Your task to perform on an android device: uninstall "DoorDash - Dasher" Image 0: 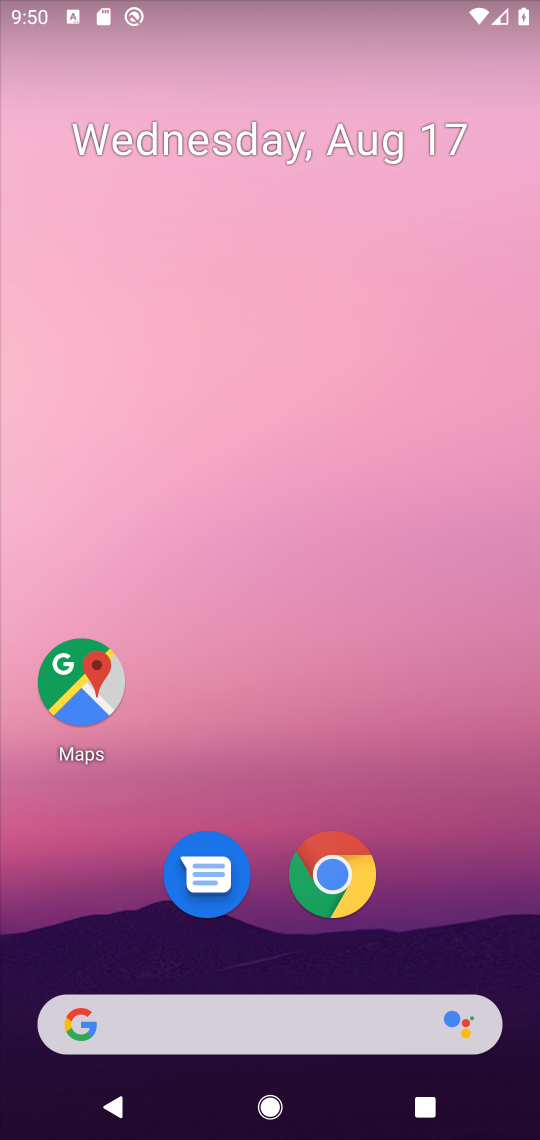
Step 0: press home button
Your task to perform on an android device: uninstall "DoorDash - Dasher" Image 1: 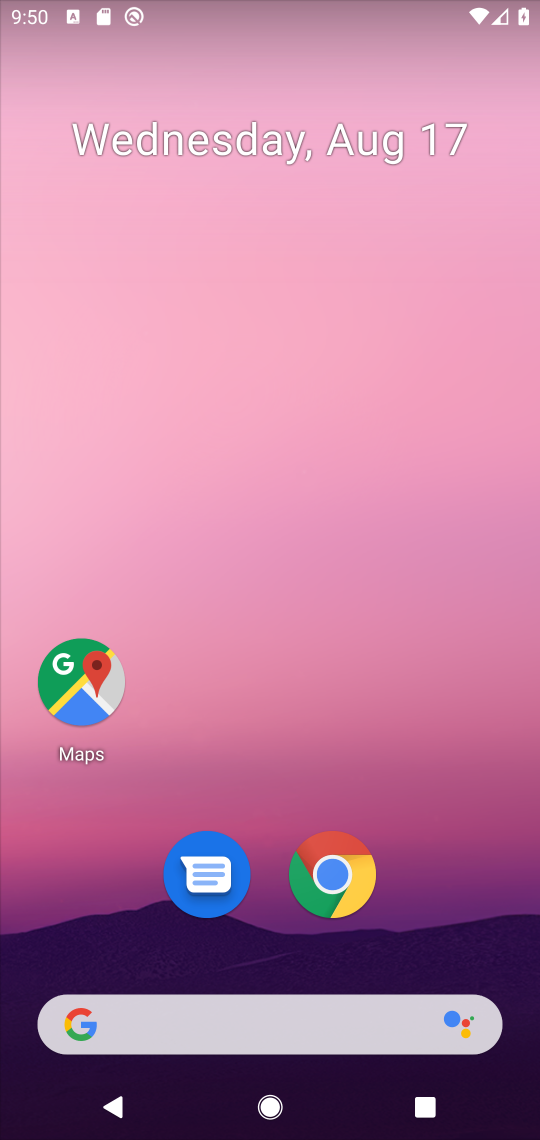
Step 1: drag from (226, 877) to (326, 190)
Your task to perform on an android device: uninstall "DoorDash - Dasher" Image 2: 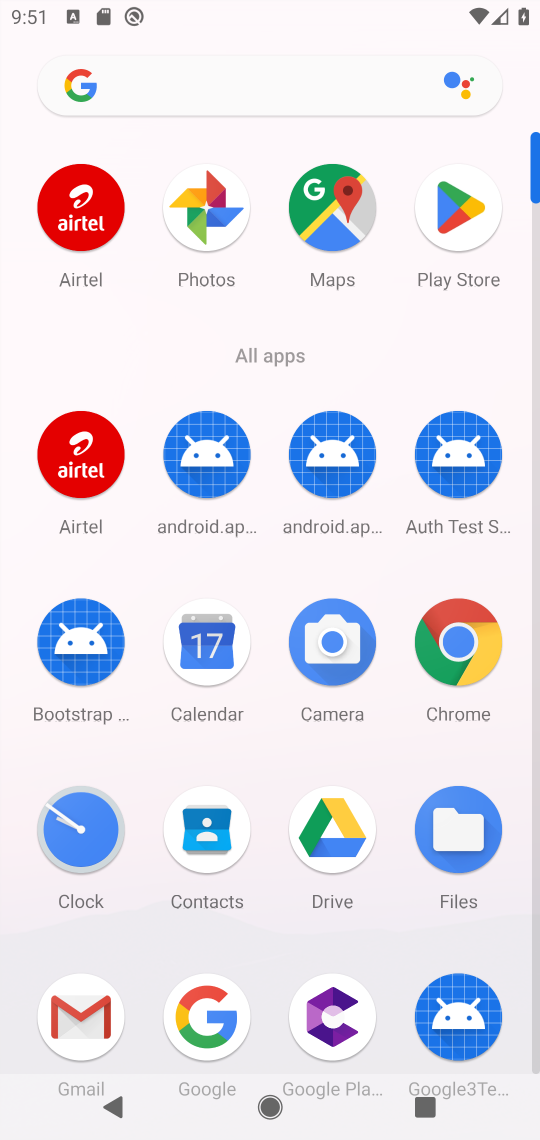
Step 2: click (464, 225)
Your task to perform on an android device: uninstall "DoorDash - Dasher" Image 3: 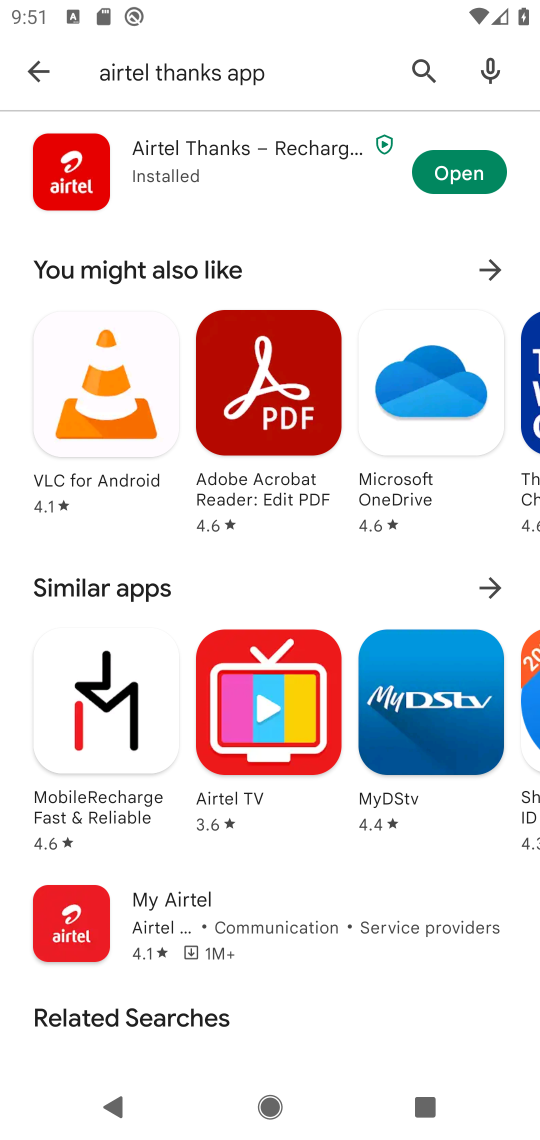
Step 3: click (22, 80)
Your task to perform on an android device: uninstall "DoorDash - Dasher" Image 4: 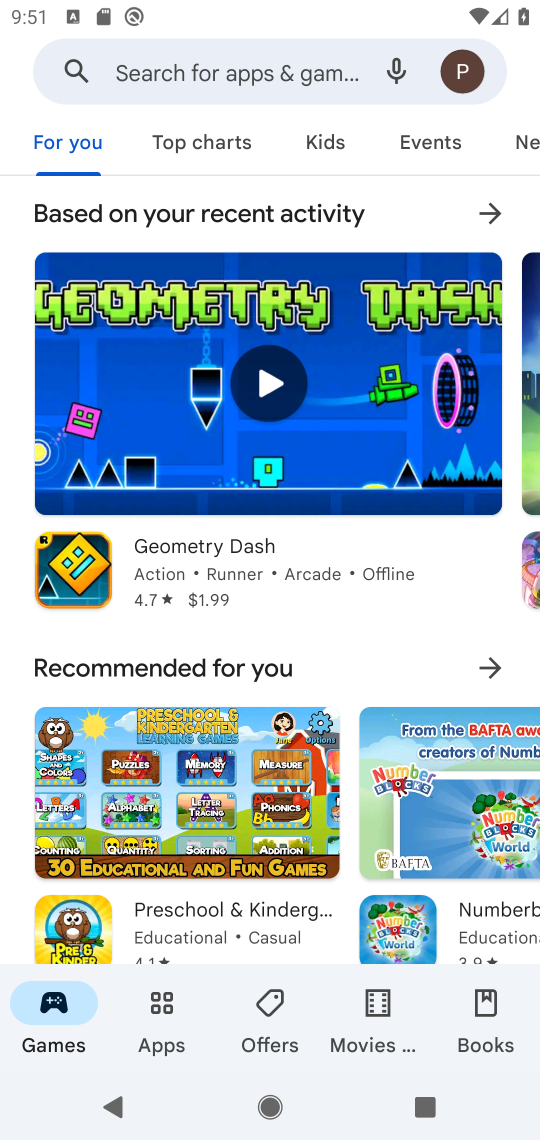
Step 4: click (166, 75)
Your task to perform on an android device: uninstall "DoorDash - Dasher" Image 5: 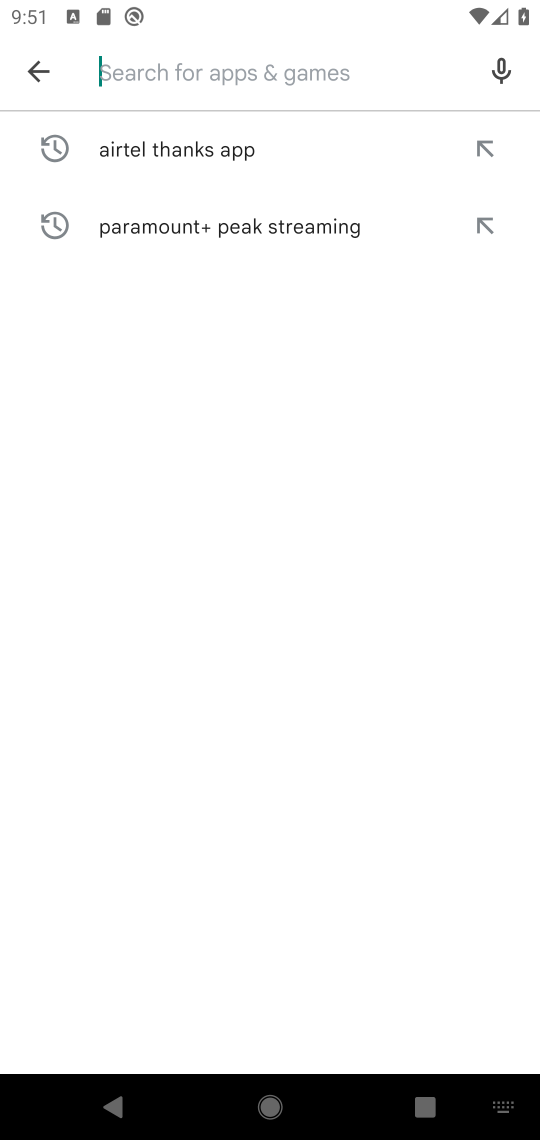
Step 5: type "DoorDash - Dasher"
Your task to perform on an android device: uninstall "DoorDash - Dasher" Image 6: 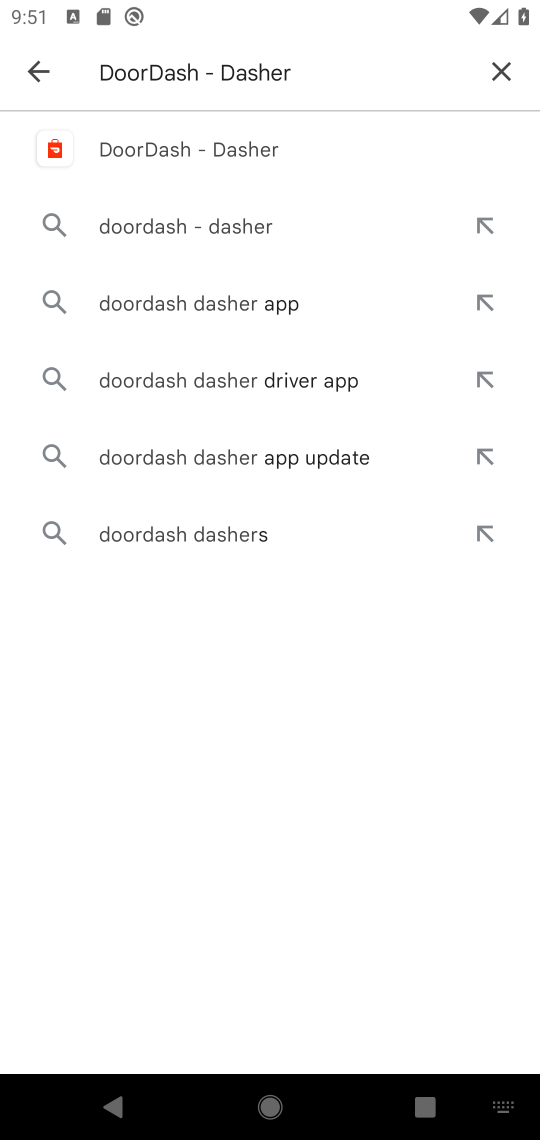
Step 6: click (167, 133)
Your task to perform on an android device: uninstall "DoorDash - Dasher" Image 7: 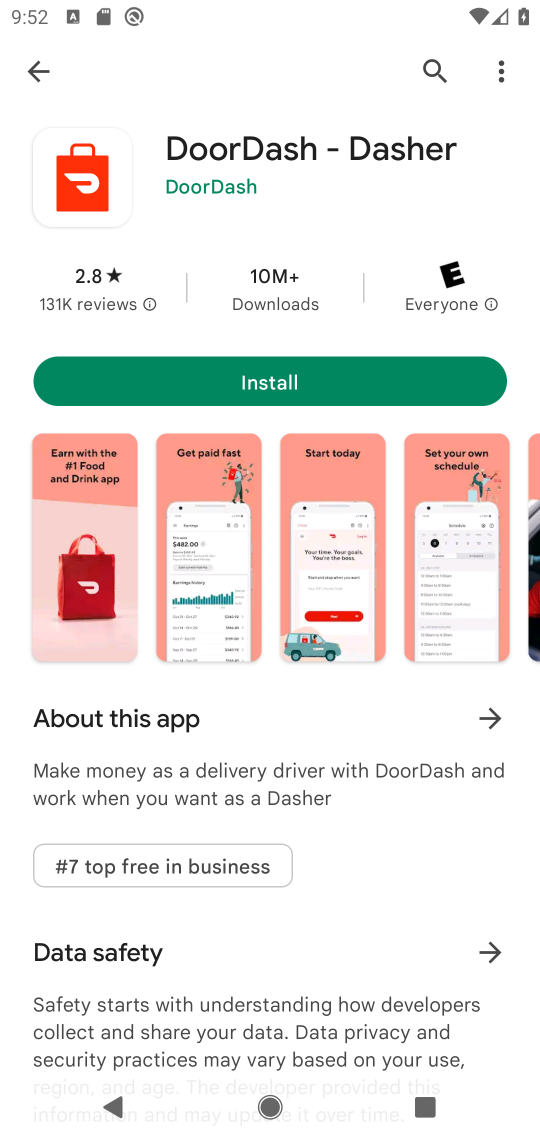
Step 7: task complete